Your task to perform on an android device: show emergency info Image 0: 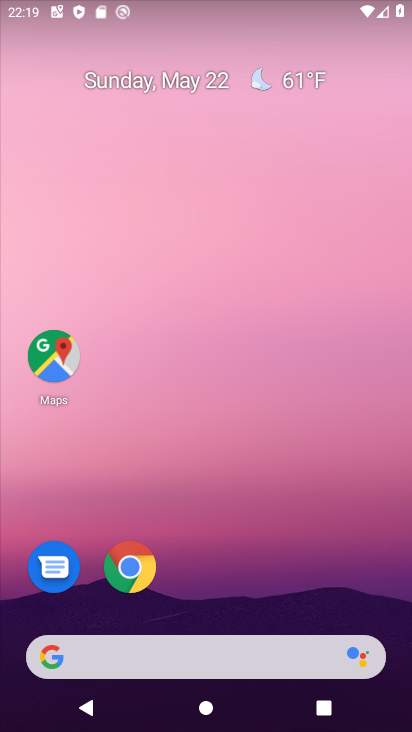
Step 0: drag from (200, 630) to (145, 5)
Your task to perform on an android device: show emergency info Image 1: 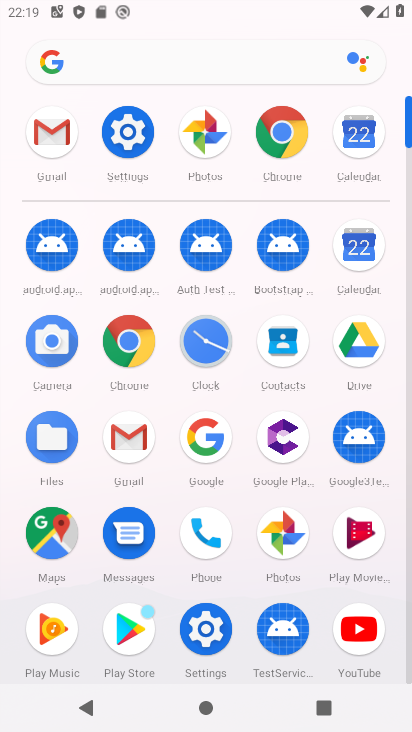
Step 1: click (141, 130)
Your task to perform on an android device: show emergency info Image 2: 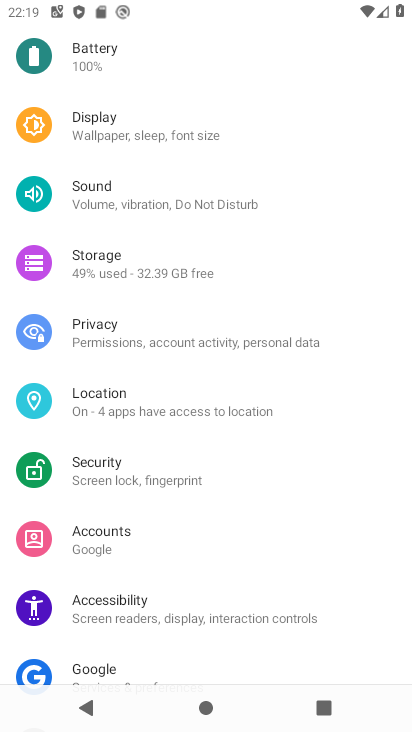
Step 2: drag from (223, 581) to (147, 0)
Your task to perform on an android device: show emergency info Image 3: 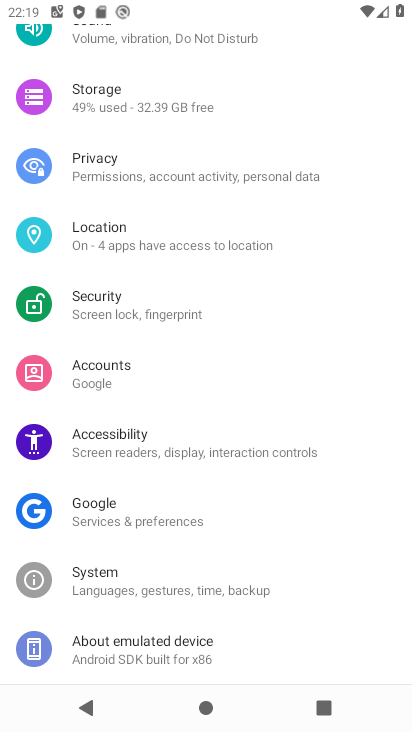
Step 3: click (170, 636)
Your task to perform on an android device: show emergency info Image 4: 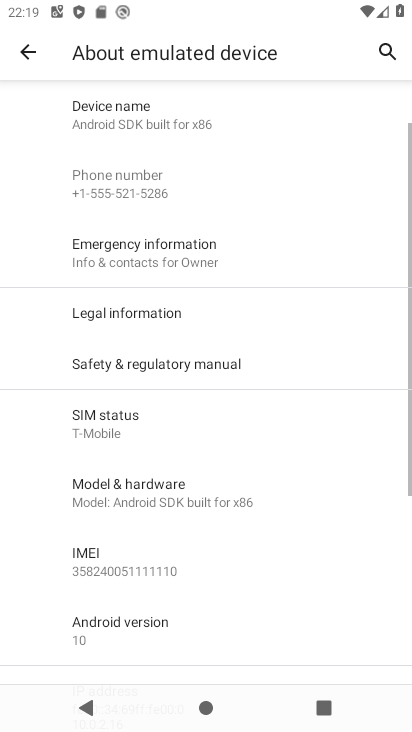
Step 4: click (122, 237)
Your task to perform on an android device: show emergency info Image 5: 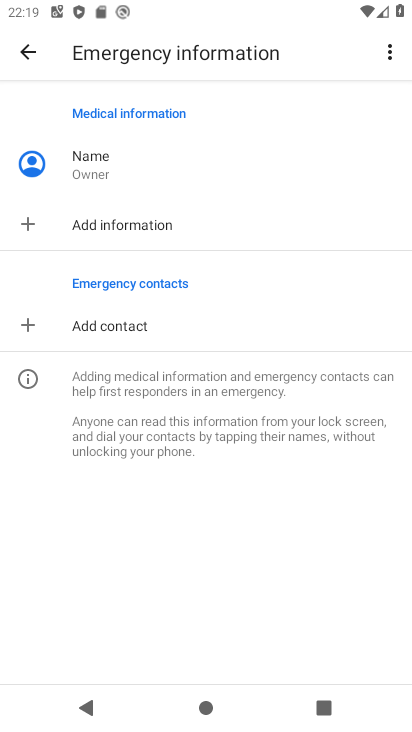
Step 5: task complete